Your task to perform on an android device: refresh tabs in the chrome app Image 0: 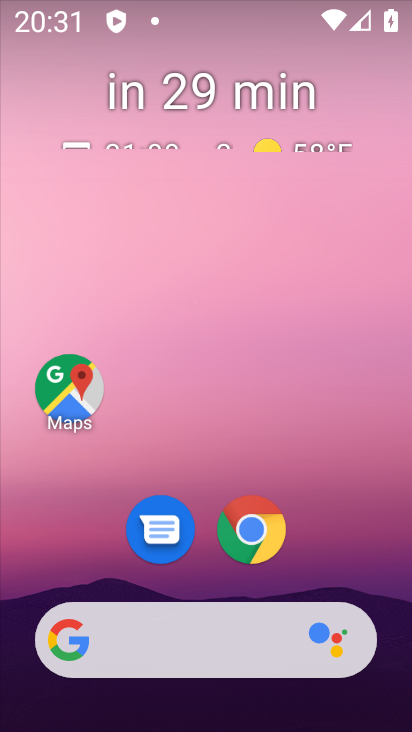
Step 0: click (253, 527)
Your task to perform on an android device: refresh tabs in the chrome app Image 1: 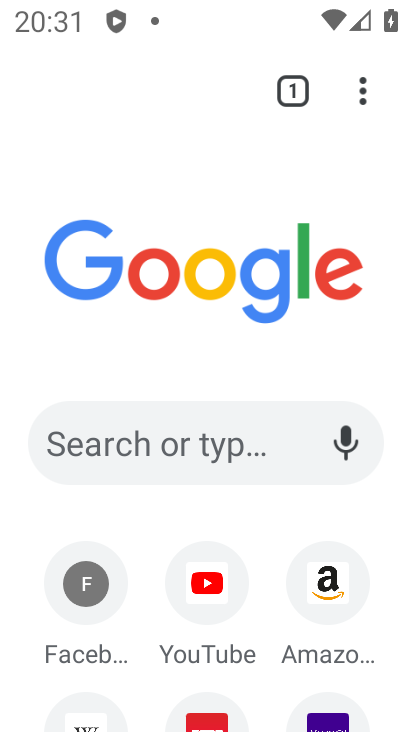
Step 1: click (359, 85)
Your task to perform on an android device: refresh tabs in the chrome app Image 2: 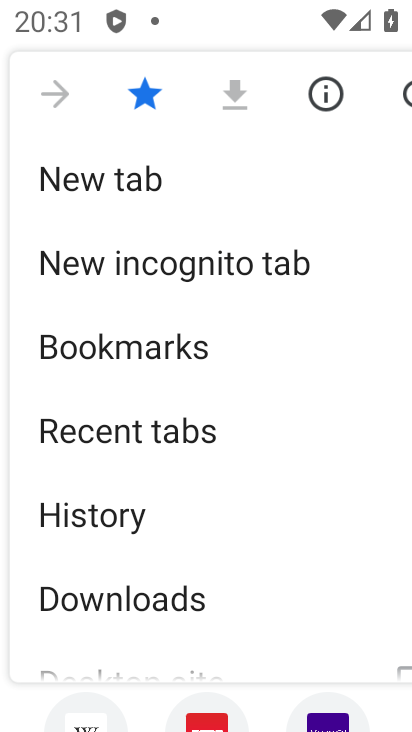
Step 2: click (404, 91)
Your task to perform on an android device: refresh tabs in the chrome app Image 3: 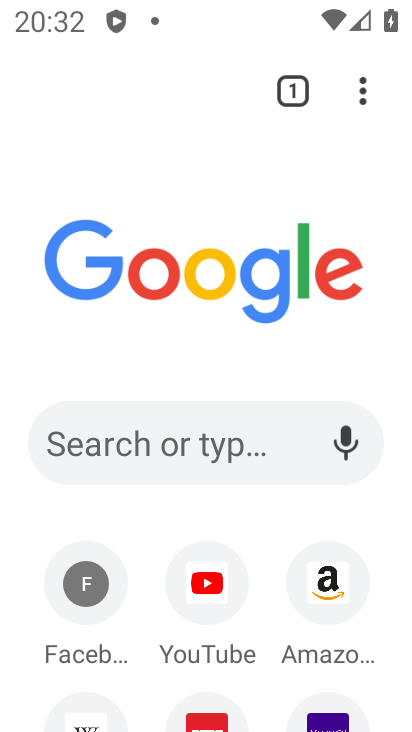
Step 3: task complete